Your task to perform on an android device: Open Wikipedia Image 0: 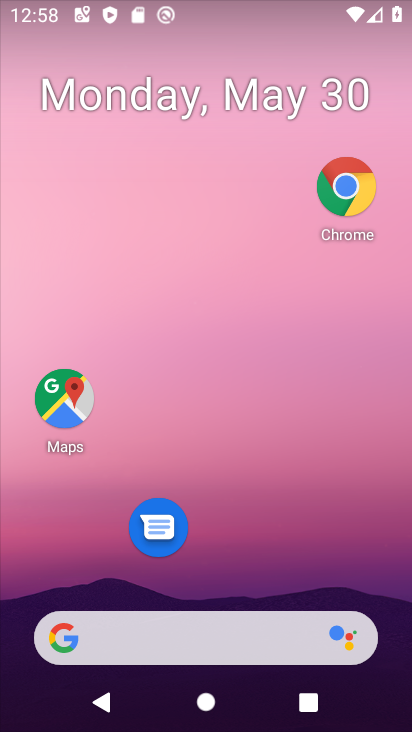
Step 0: drag from (219, 577) to (261, 13)
Your task to perform on an android device: Open Wikipedia Image 1: 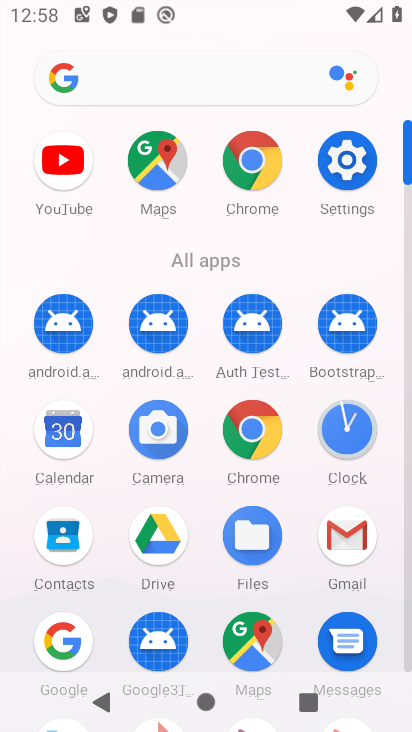
Step 1: click (182, 83)
Your task to perform on an android device: Open Wikipedia Image 2: 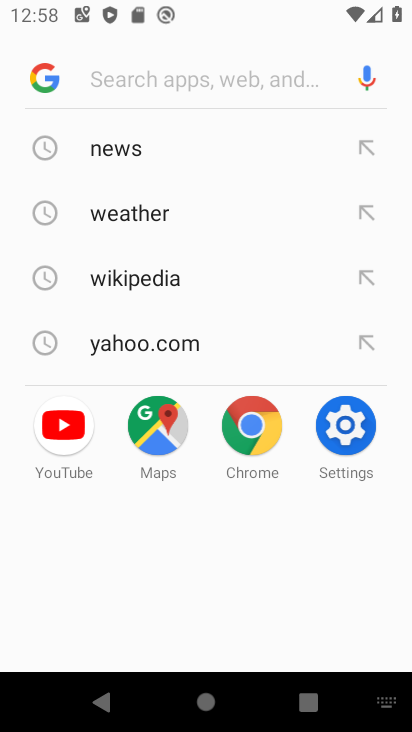
Step 2: click (174, 287)
Your task to perform on an android device: Open Wikipedia Image 3: 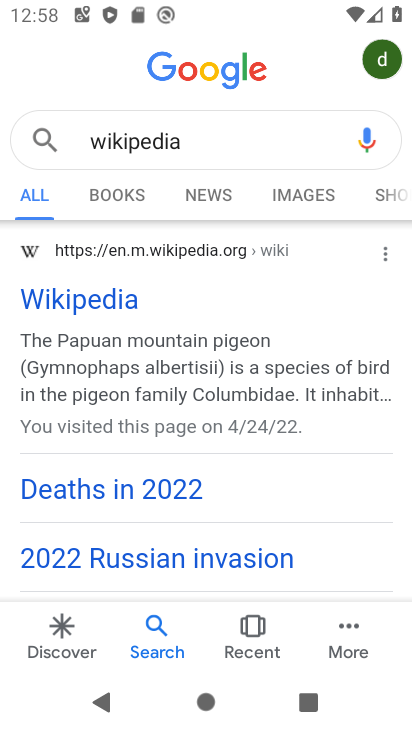
Step 3: click (86, 293)
Your task to perform on an android device: Open Wikipedia Image 4: 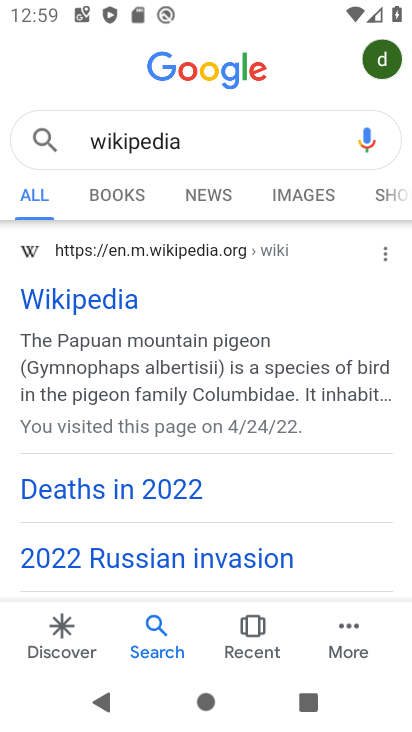
Step 4: click (86, 309)
Your task to perform on an android device: Open Wikipedia Image 5: 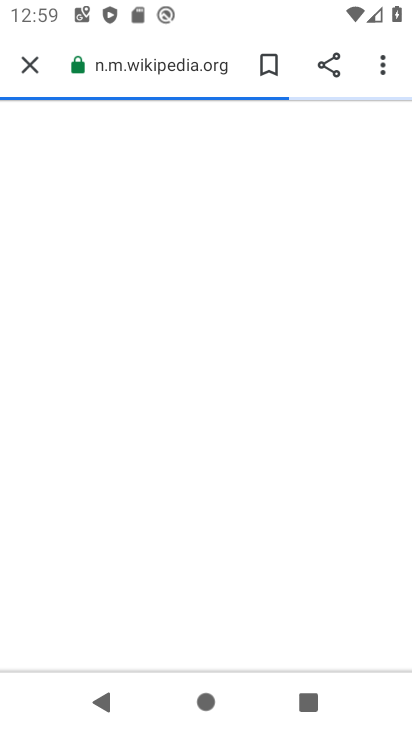
Step 5: task complete